Your task to perform on an android device: move an email to a new category in the gmail app Image 0: 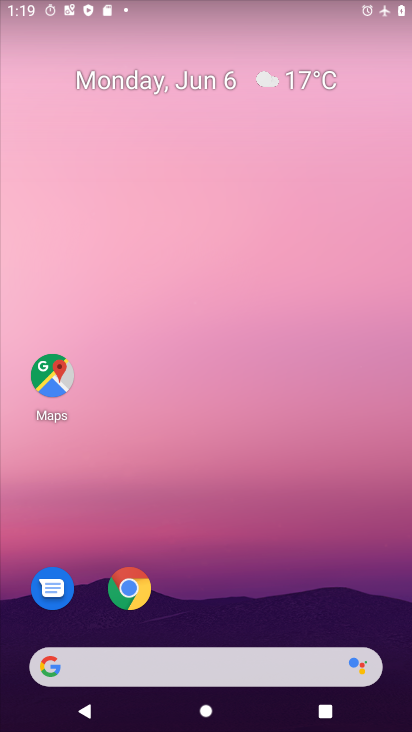
Step 0: drag from (268, 546) to (272, 81)
Your task to perform on an android device: move an email to a new category in the gmail app Image 1: 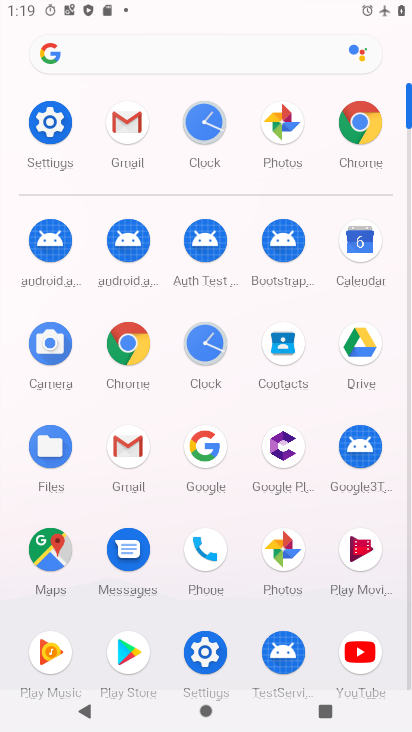
Step 1: click (121, 116)
Your task to perform on an android device: move an email to a new category in the gmail app Image 2: 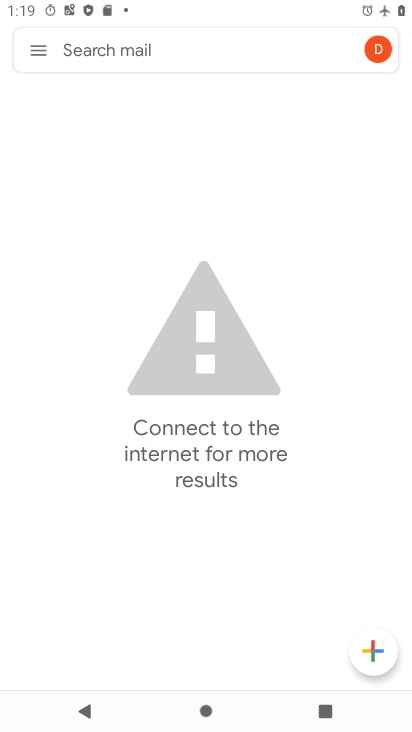
Step 2: click (29, 45)
Your task to perform on an android device: move an email to a new category in the gmail app Image 3: 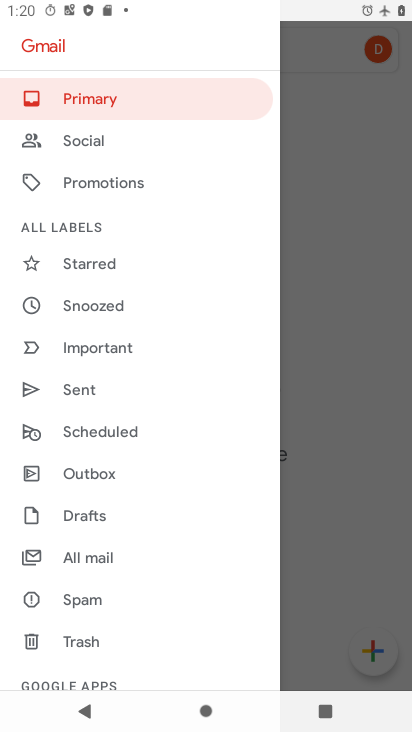
Step 3: click (94, 560)
Your task to perform on an android device: move an email to a new category in the gmail app Image 4: 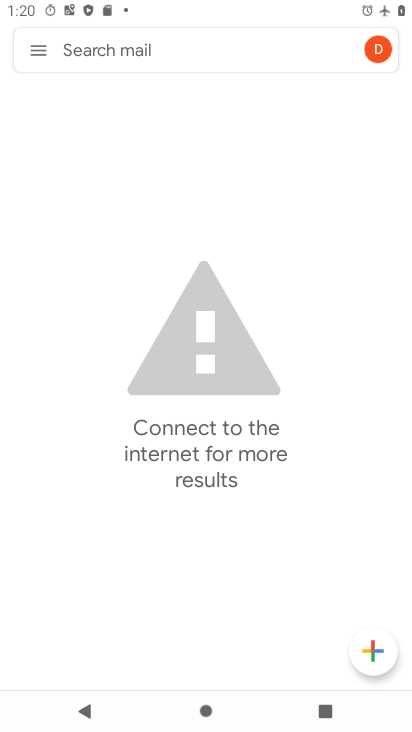
Step 4: task complete